Your task to perform on an android device: set default search engine in the chrome app Image 0: 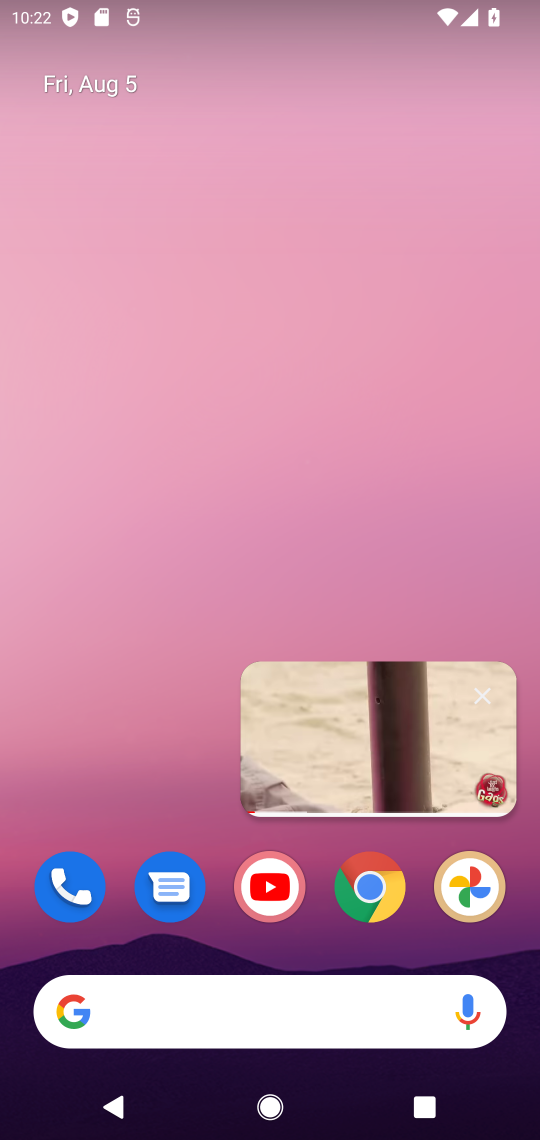
Step 0: press home button
Your task to perform on an android device: set default search engine in the chrome app Image 1: 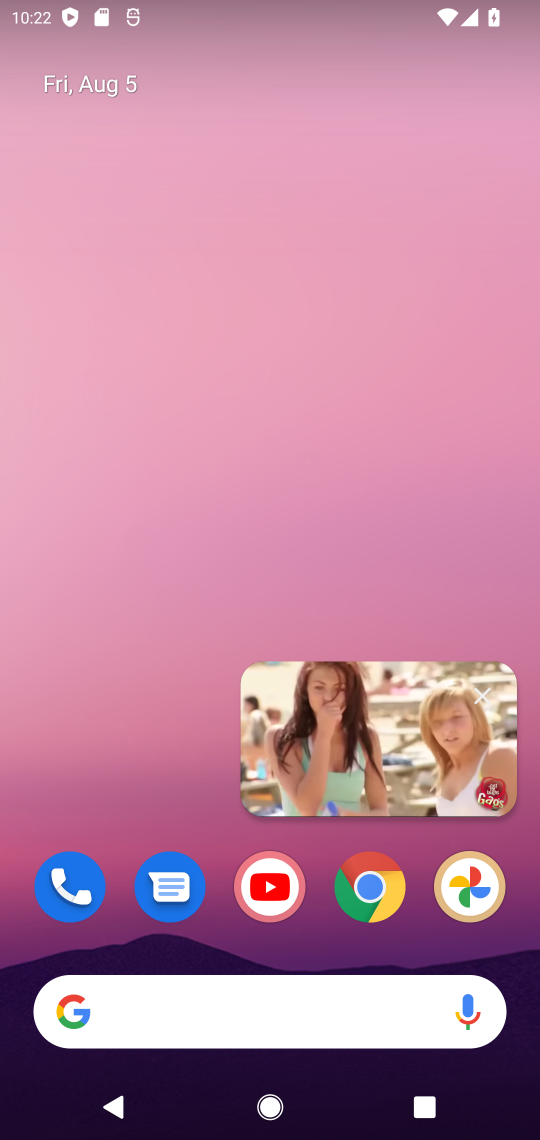
Step 1: click (492, 704)
Your task to perform on an android device: set default search engine in the chrome app Image 2: 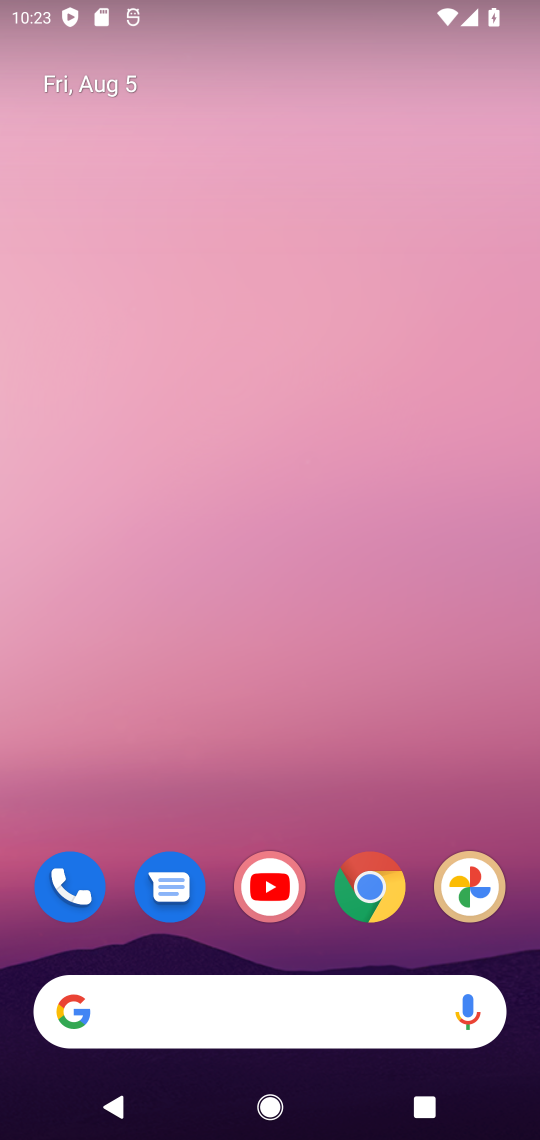
Step 2: drag from (320, 945) to (428, 64)
Your task to perform on an android device: set default search engine in the chrome app Image 3: 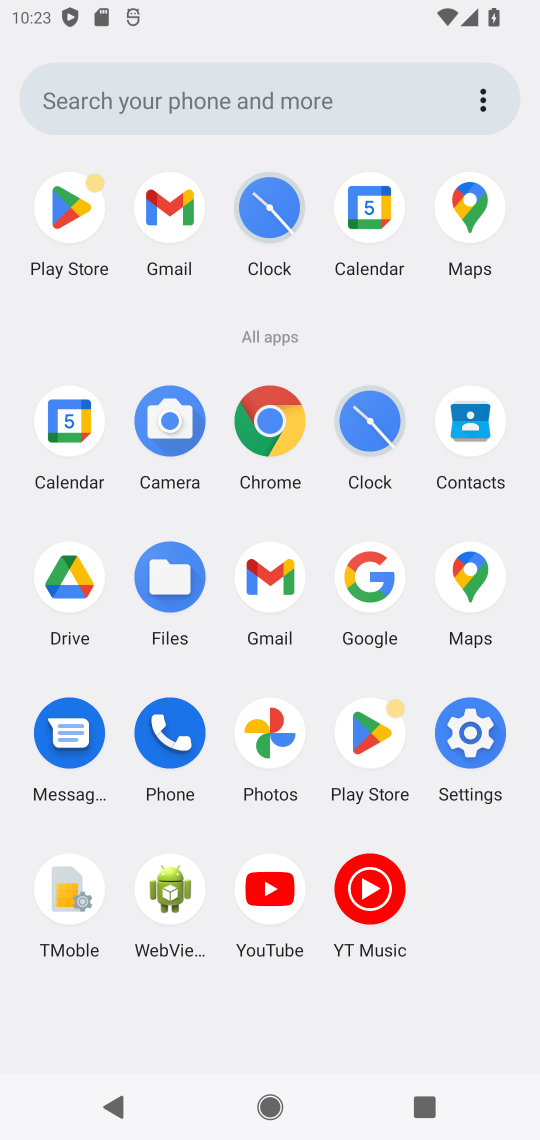
Step 3: click (266, 412)
Your task to perform on an android device: set default search engine in the chrome app Image 4: 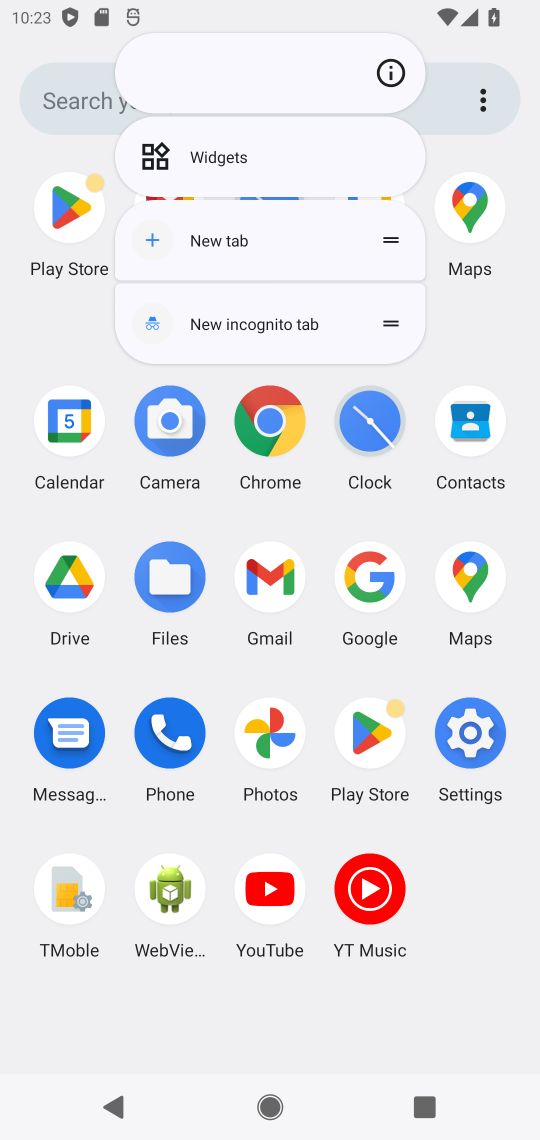
Step 4: click (264, 428)
Your task to perform on an android device: set default search engine in the chrome app Image 5: 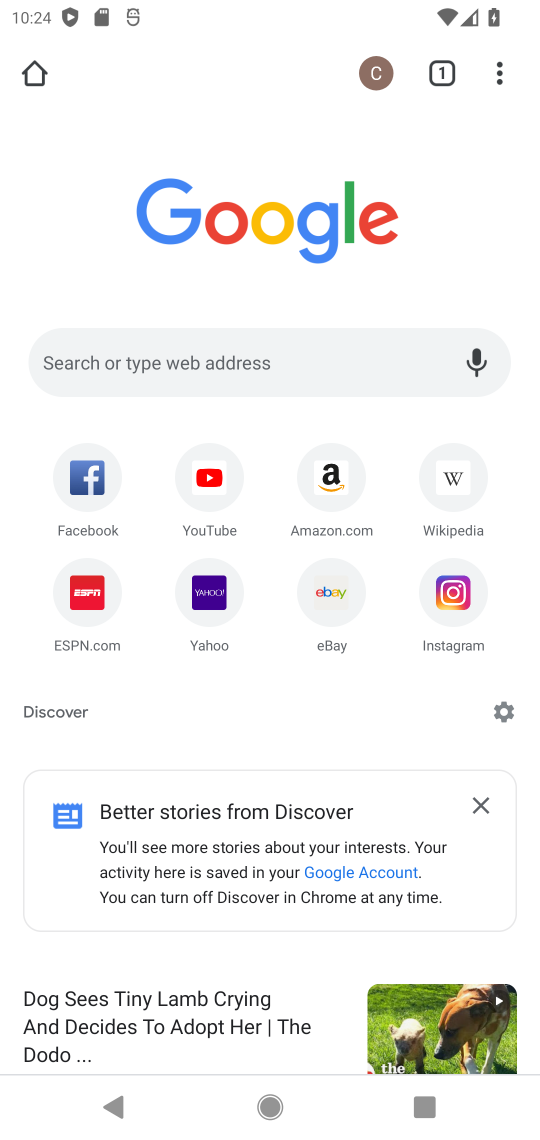
Step 5: drag from (497, 75) to (280, 679)
Your task to perform on an android device: set default search engine in the chrome app Image 6: 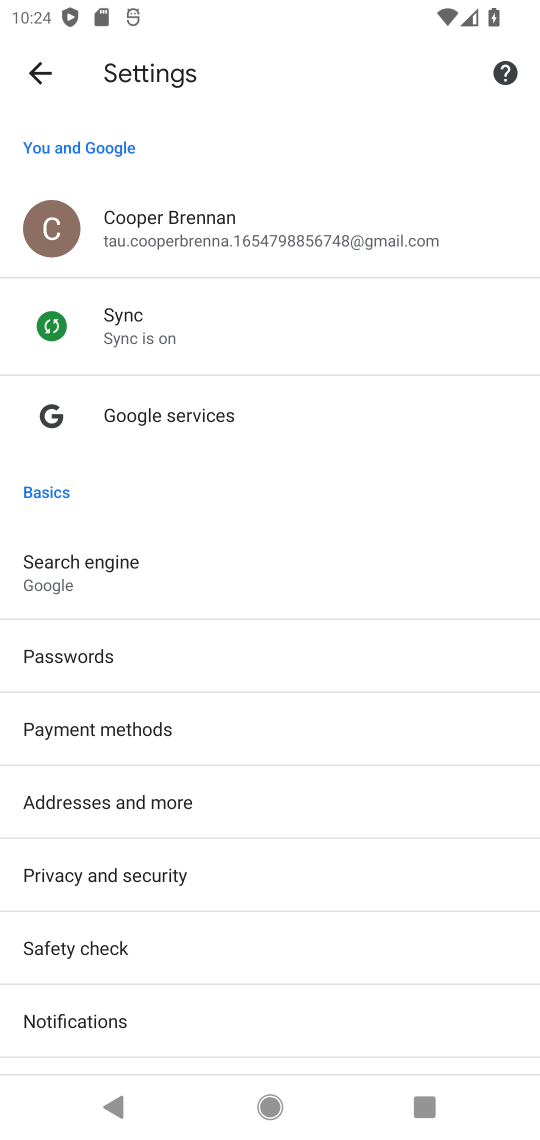
Step 6: click (60, 572)
Your task to perform on an android device: set default search engine in the chrome app Image 7: 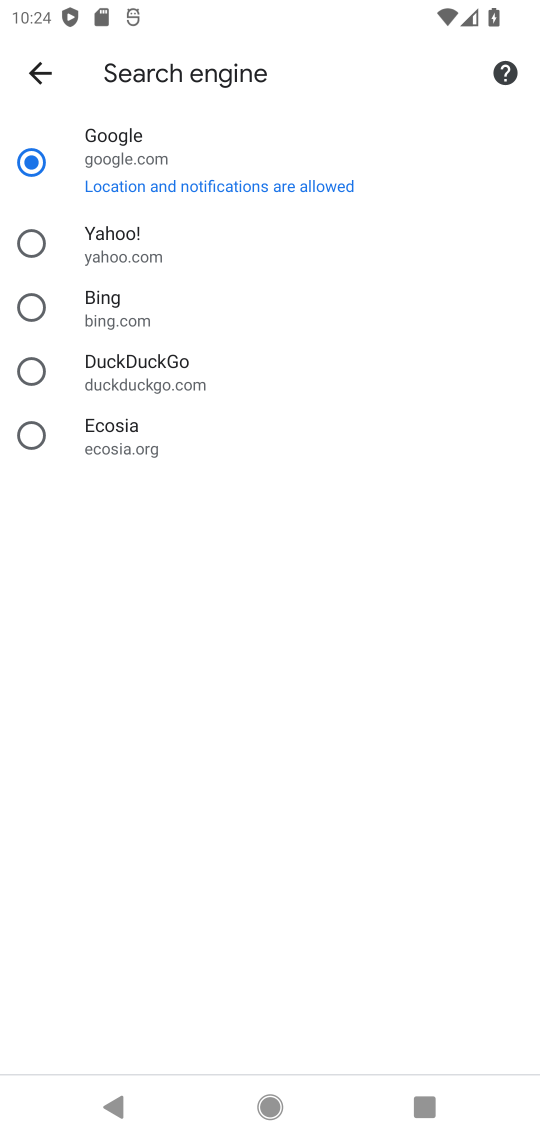
Step 7: click (28, 239)
Your task to perform on an android device: set default search engine in the chrome app Image 8: 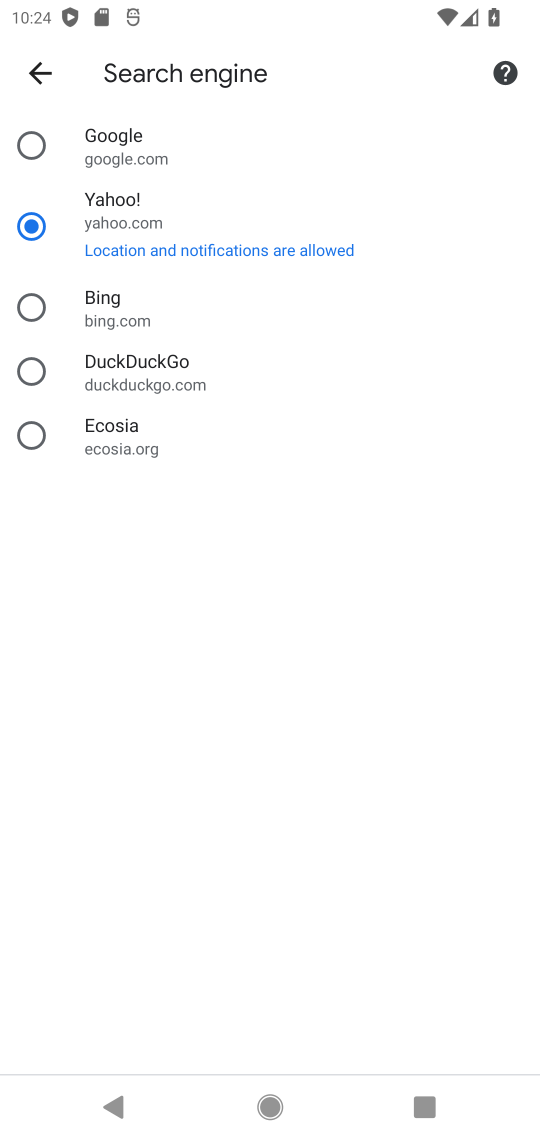
Step 8: task complete